Your task to perform on an android device: Open Chrome and go to the settings page Image 0: 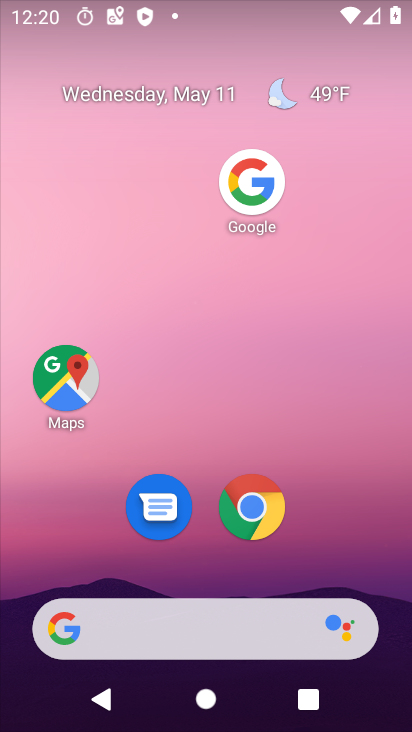
Step 0: click (252, 503)
Your task to perform on an android device: Open Chrome and go to the settings page Image 1: 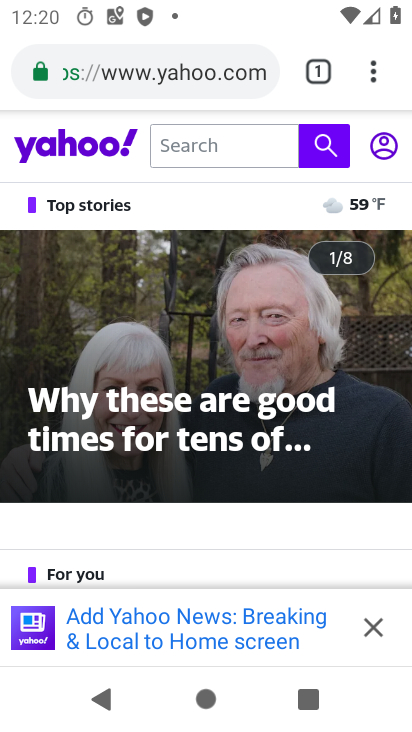
Step 1: click (362, 78)
Your task to perform on an android device: Open Chrome and go to the settings page Image 2: 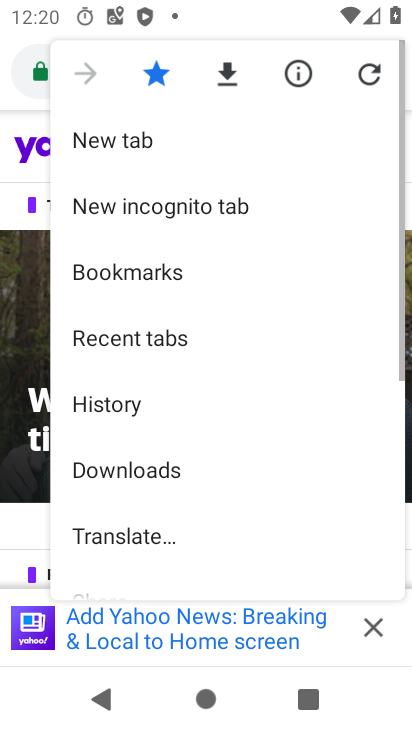
Step 2: drag from (230, 380) to (253, 81)
Your task to perform on an android device: Open Chrome and go to the settings page Image 3: 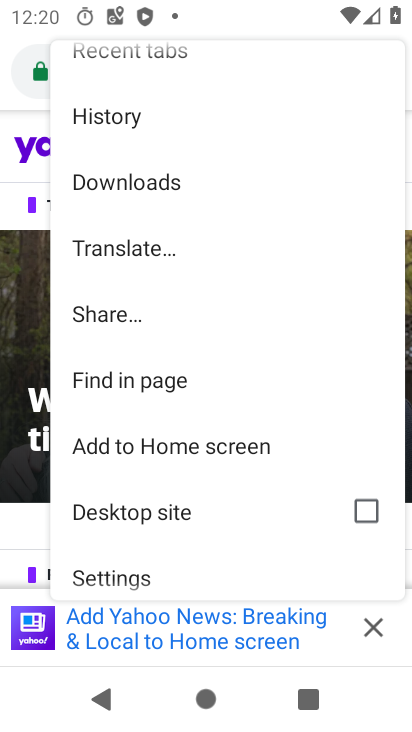
Step 3: click (127, 567)
Your task to perform on an android device: Open Chrome and go to the settings page Image 4: 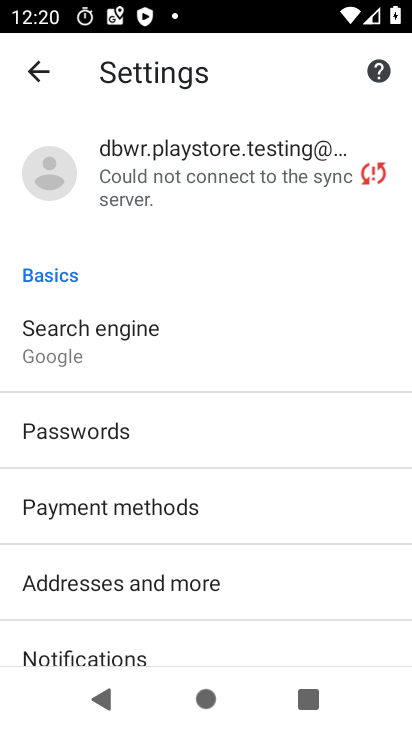
Step 4: task complete